Your task to perform on an android device: turn pop-ups off in chrome Image 0: 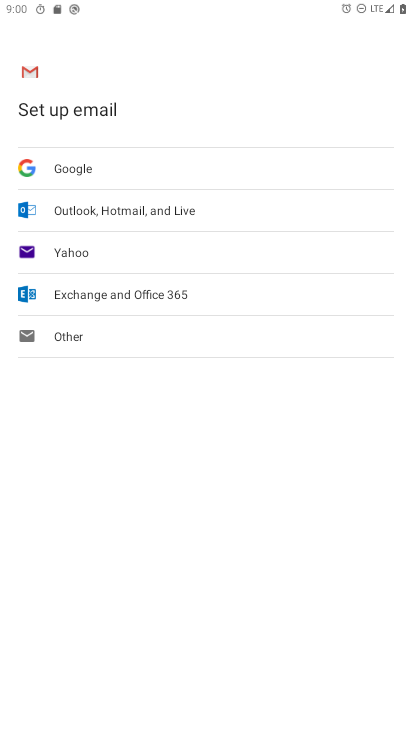
Step 0: press home button
Your task to perform on an android device: turn pop-ups off in chrome Image 1: 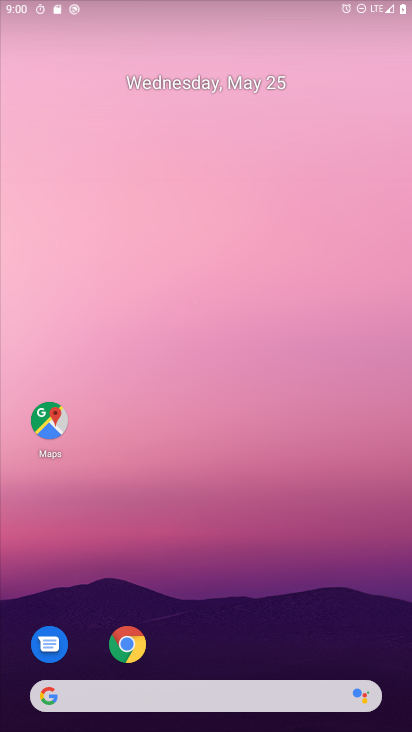
Step 1: drag from (374, 650) to (270, 25)
Your task to perform on an android device: turn pop-ups off in chrome Image 2: 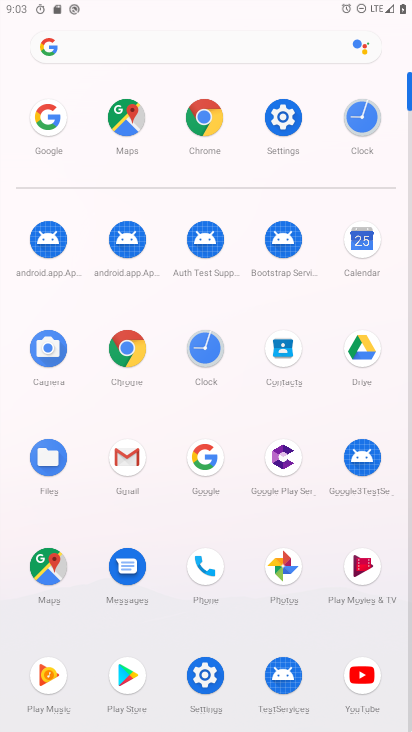
Step 2: click (123, 374)
Your task to perform on an android device: turn pop-ups off in chrome Image 3: 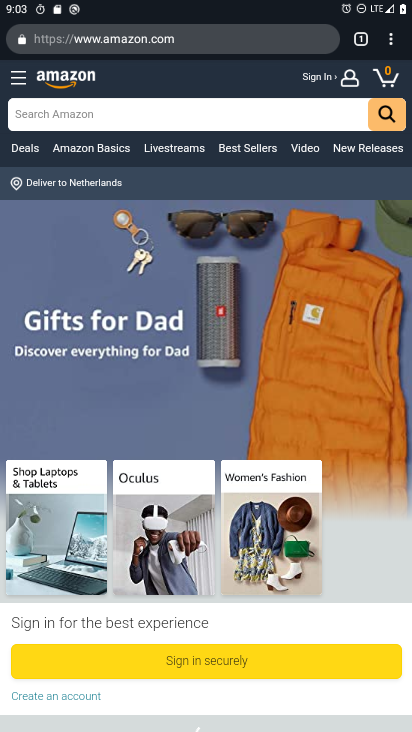
Step 3: press back button
Your task to perform on an android device: turn pop-ups off in chrome Image 4: 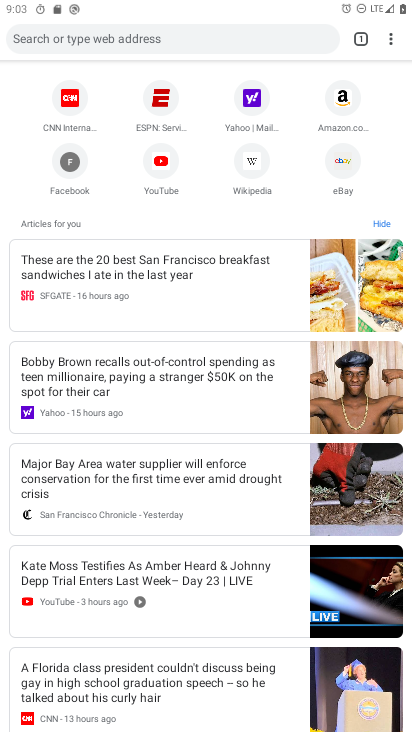
Step 4: click (393, 36)
Your task to perform on an android device: turn pop-ups off in chrome Image 5: 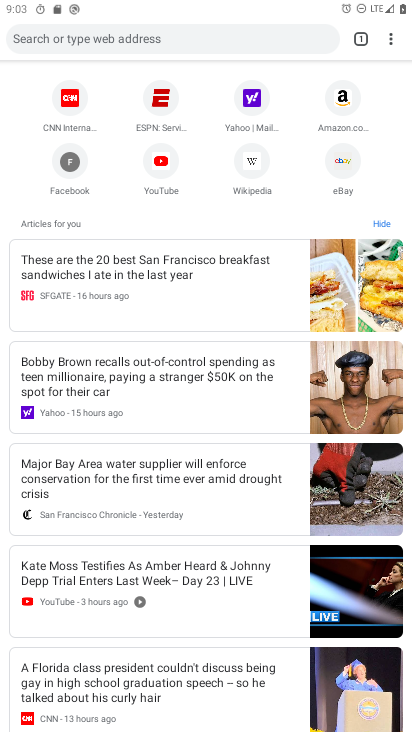
Step 5: click (395, 36)
Your task to perform on an android device: turn pop-ups off in chrome Image 6: 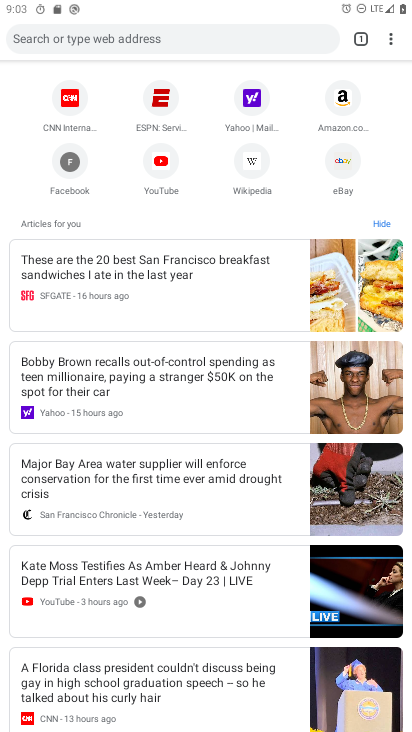
Step 6: click (385, 33)
Your task to perform on an android device: turn pop-ups off in chrome Image 7: 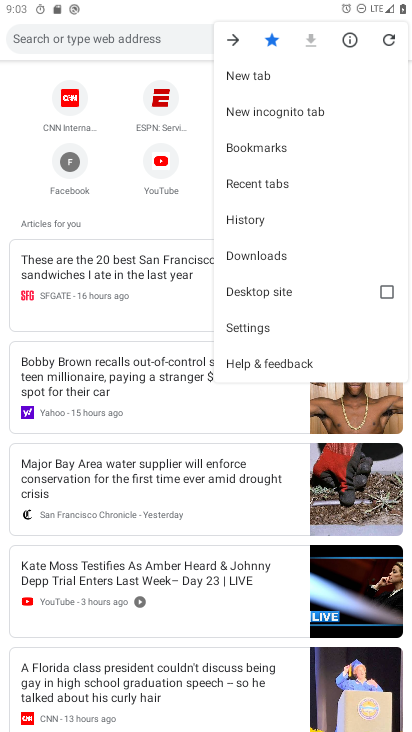
Step 7: click (261, 326)
Your task to perform on an android device: turn pop-ups off in chrome Image 8: 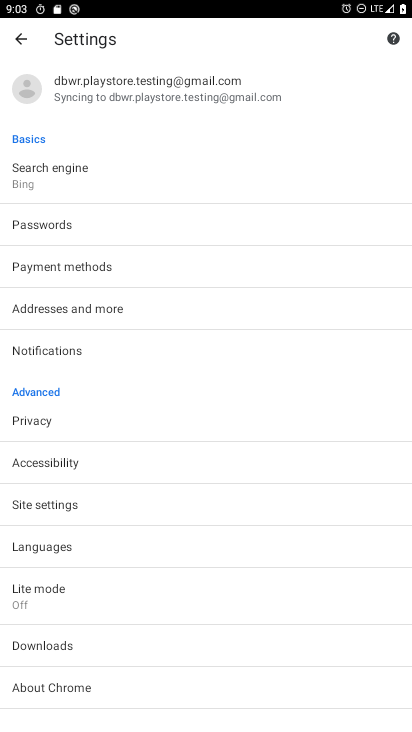
Step 8: click (80, 495)
Your task to perform on an android device: turn pop-ups off in chrome Image 9: 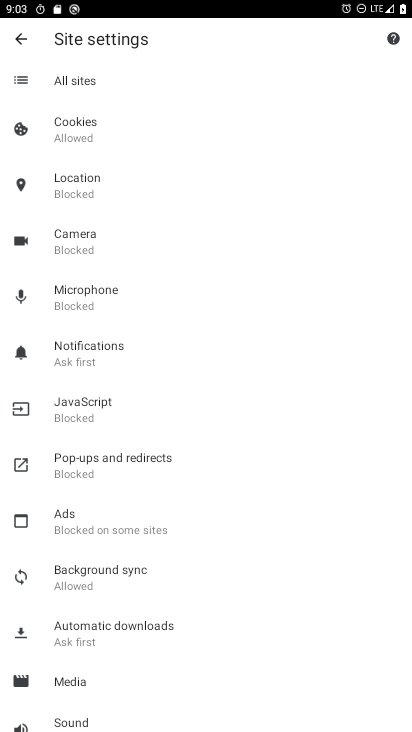
Step 9: click (86, 476)
Your task to perform on an android device: turn pop-ups off in chrome Image 10: 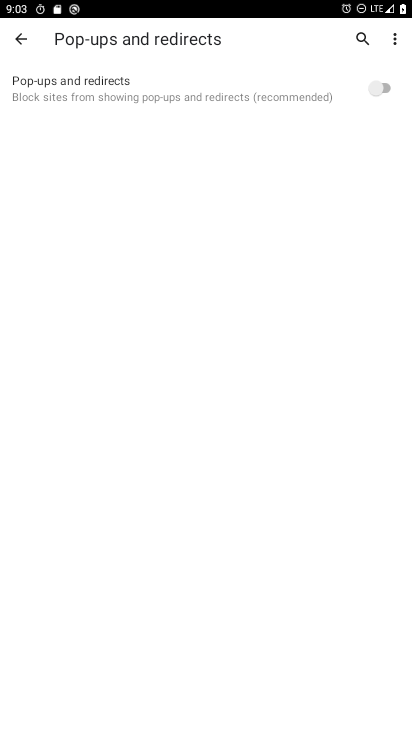
Step 10: click (360, 99)
Your task to perform on an android device: turn pop-ups off in chrome Image 11: 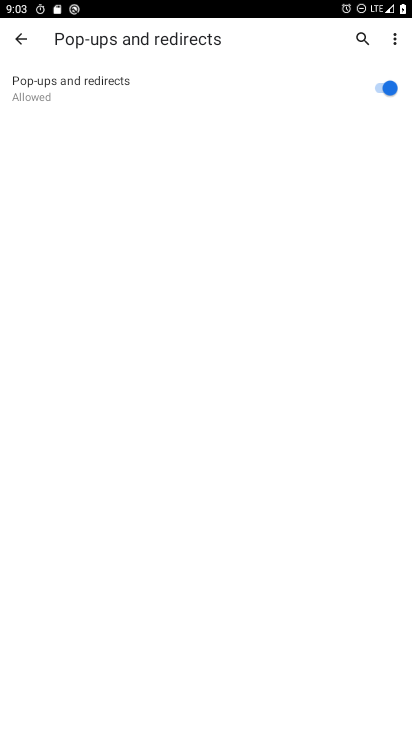
Step 11: click (360, 99)
Your task to perform on an android device: turn pop-ups off in chrome Image 12: 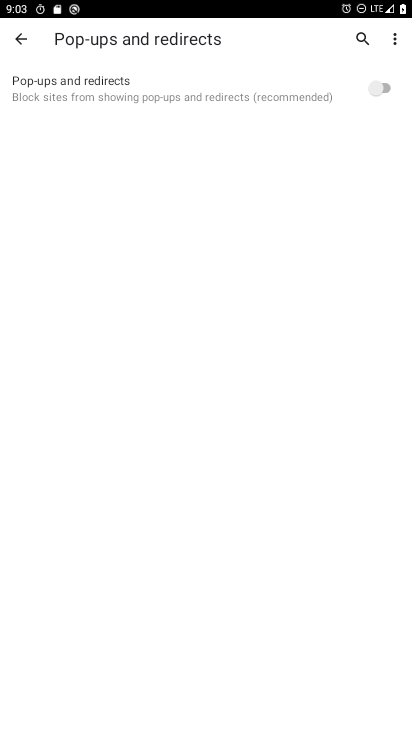
Step 12: task complete